Your task to perform on an android device: open chrome and create a bookmark for the current page Image 0: 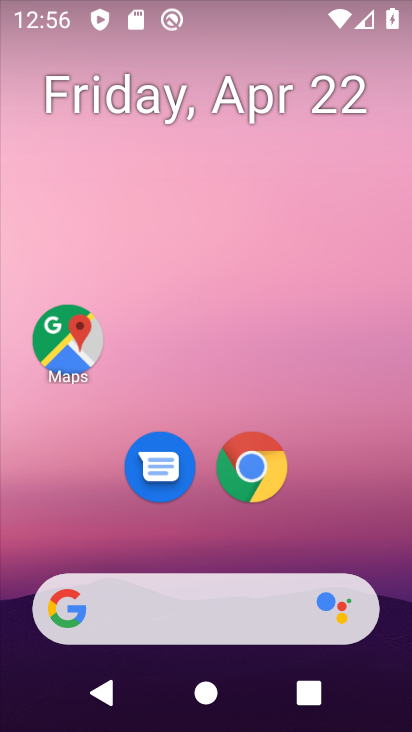
Step 0: click (255, 465)
Your task to perform on an android device: open chrome and create a bookmark for the current page Image 1: 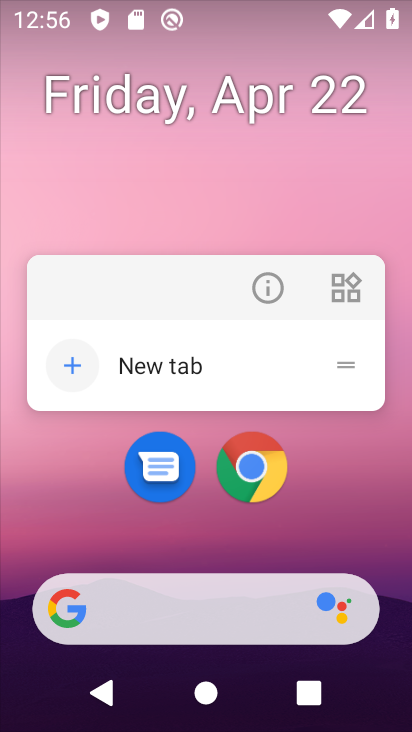
Step 1: click (301, 495)
Your task to perform on an android device: open chrome and create a bookmark for the current page Image 2: 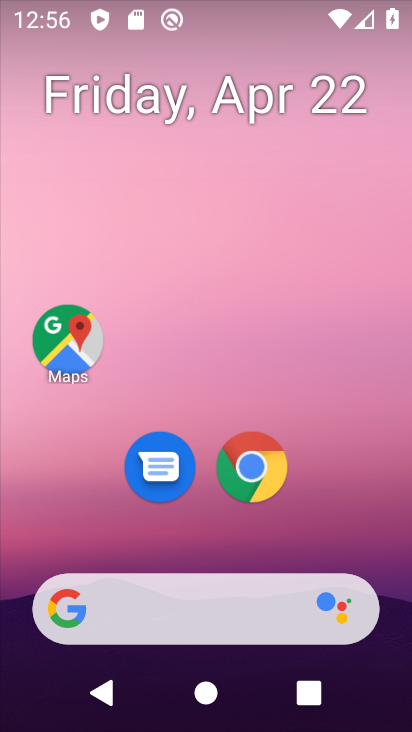
Step 2: drag from (238, 548) to (261, 22)
Your task to perform on an android device: open chrome and create a bookmark for the current page Image 3: 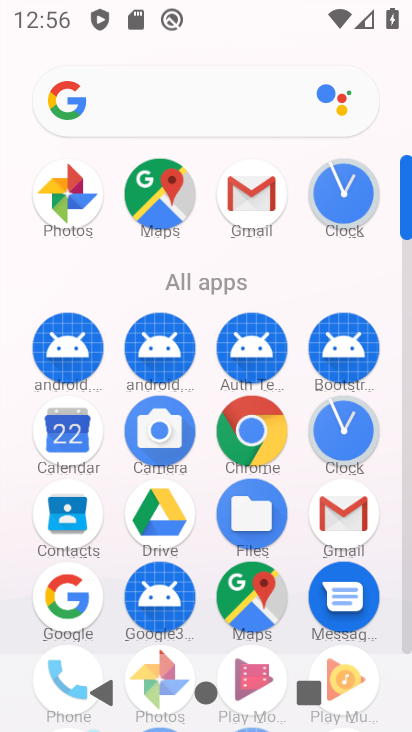
Step 3: click (253, 425)
Your task to perform on an android device: open chrome and create a bookmark for the current page Image 4: 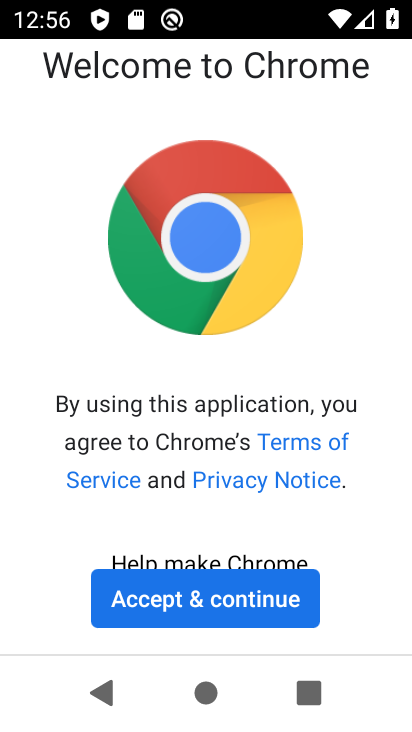
Step 4: click (197, 607)
Your task to perform on an android device: open chrome and create a bookmark for the current page Image 5: 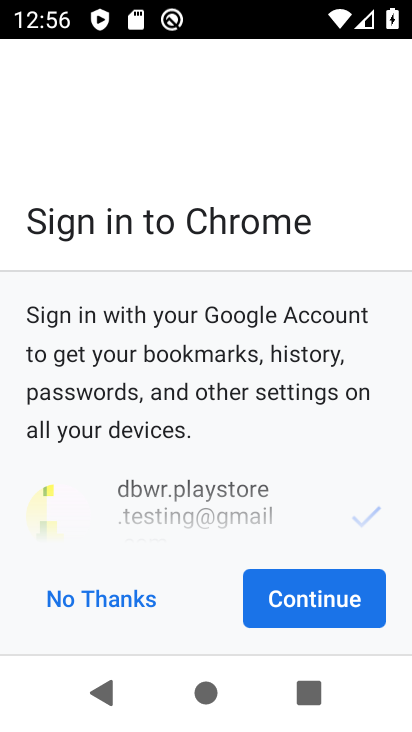
Step 5: click (315, 609)
Your task to perform on an android device: open chrome and create a bookmark for the current page Image 6: 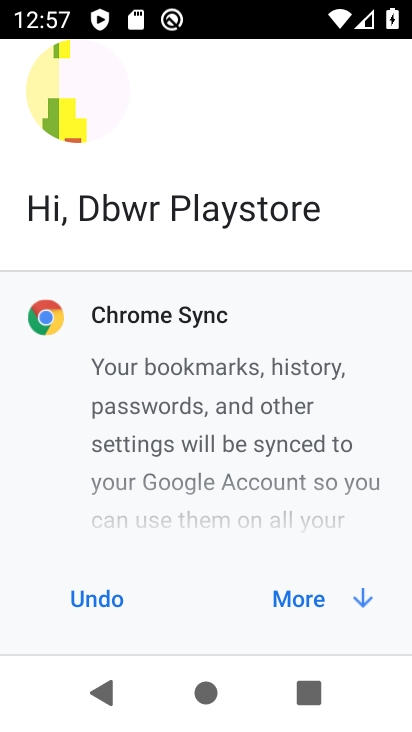
Step 6: click (315, 608)
Your task to perform on an android device: open chrome and create a bookmark for the current page Image 7: 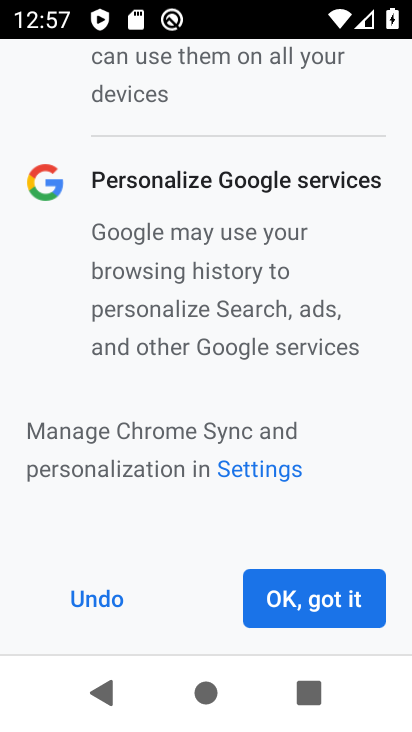
Step 7: click (315, 608)
Your task to perform on an android device: open chrome and create a bookmark for the current page Image 8: 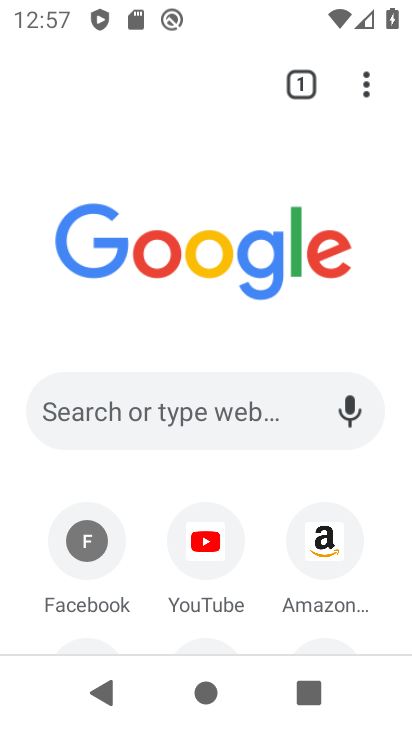
Step 8: click (365, 79)
Your task to perform on an android device: open chrome and create a bookmark for the current page Image 9: 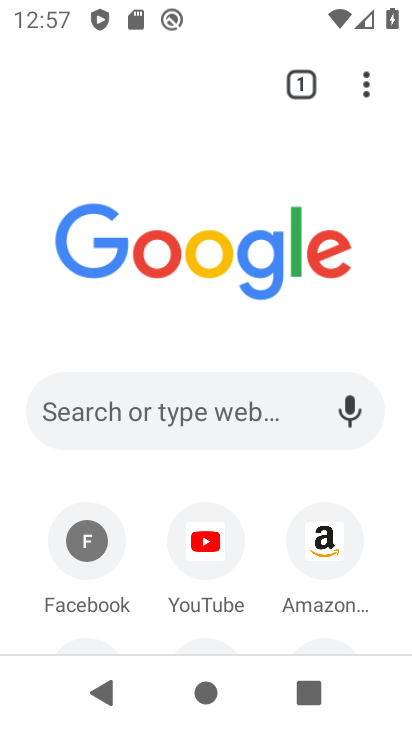
Step 9: click (368, 87)
Your task to perform on an android device: open chrome and create a bookmark for the current page Image 10: 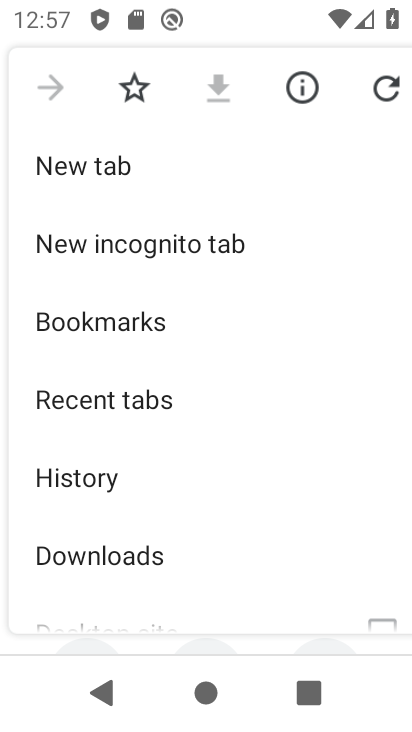
Step 10: click (127, 90)
Your task to perform on an android device: open chrome and create a bookmark for the current page Image 11: 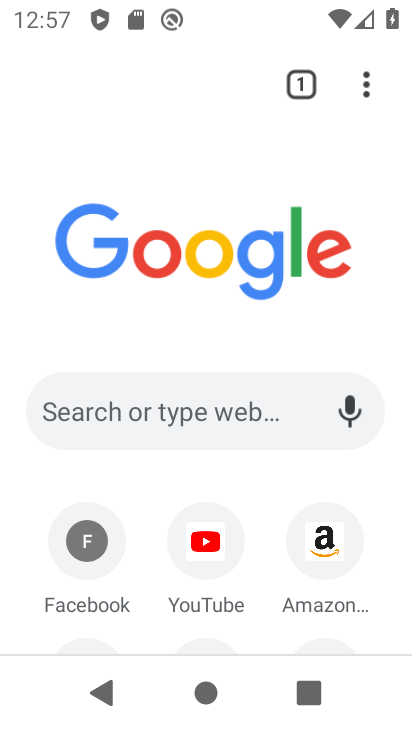
Step 11: click (139, 91)
Your task to perform on an android device: open chrome and create a bookmark for the current page Image 12: 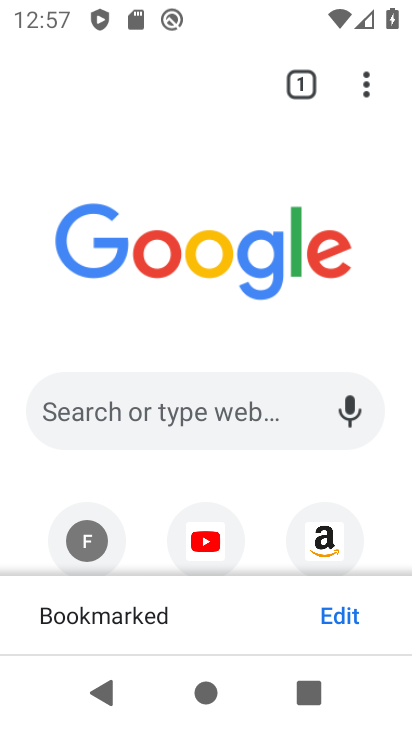
Step 12: task complete